Your task to perform on an android device: What's on my calendar tomorrow? Image 0: 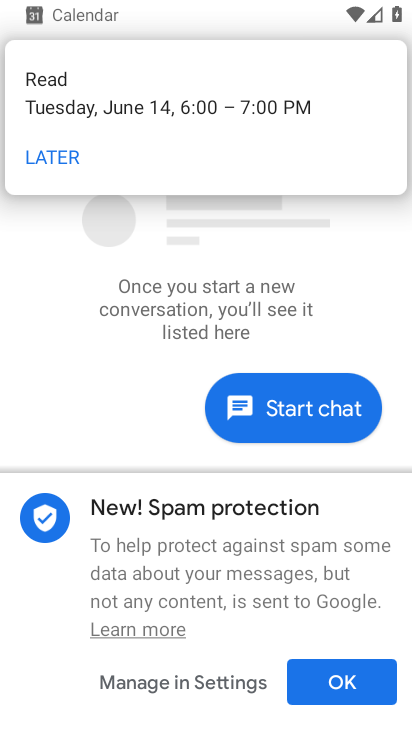
Step 0: press home button
Your task to perform on an android device: What's on my calendar tomorrow? Image 1: 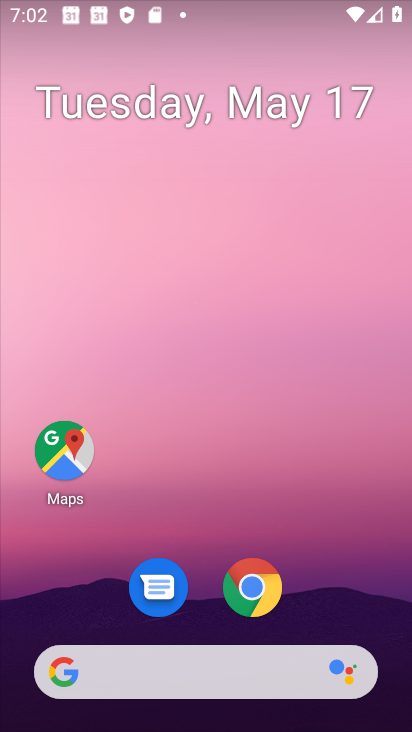
Step 1: drag from (250, 700) to (251, 215)
Your task to perform on an android device: What's on my calendar tomorrow? Image 2: 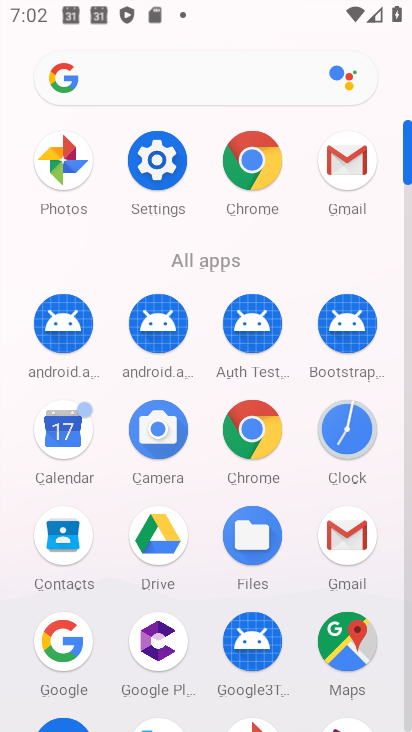
Step 2: click (82, 432)
Your task to perform on an android device: What's on my calendar tomorrow? Image 3: 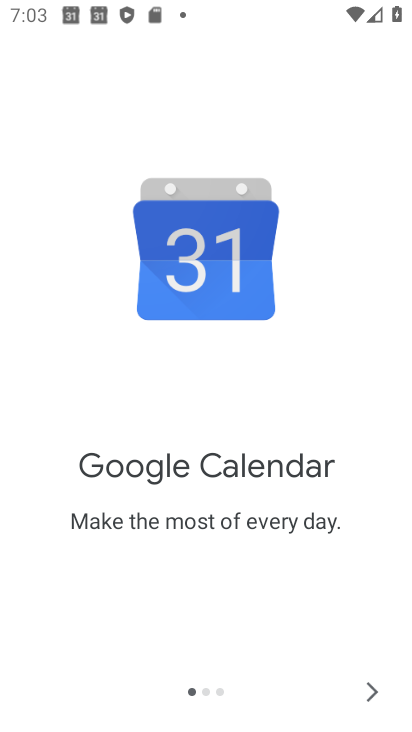
Step 3: click (355, 702)
Your task to perform on an android device: What's on my calendar tomorrow? Image 4: 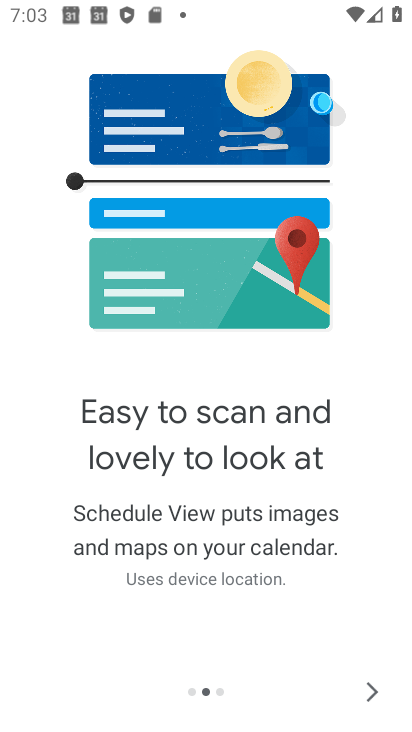
Step 4: click (359, 697)
Your task to perform on an android device: What's on my calendar tomorrow? Image 5: 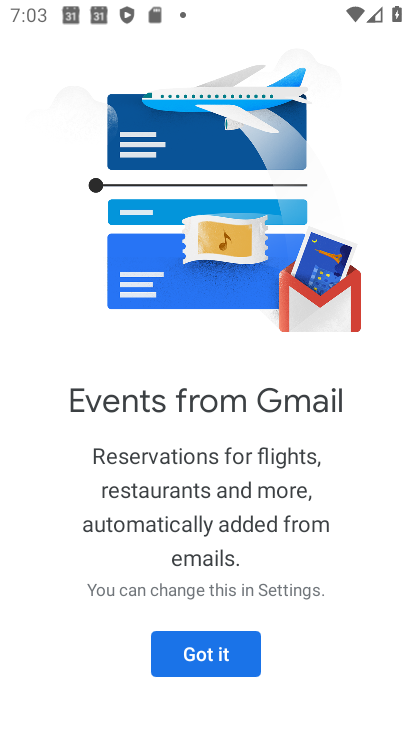
Step 5: click (195, 646)
Your task to perform on an android device: What's on my calendar tomorrow? Image 6: 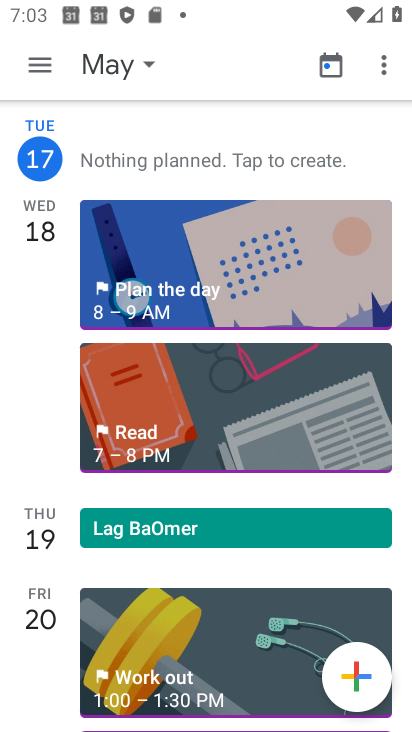
Step 6: task complete